Your task to perform on an android device: change timer sound Image 0: 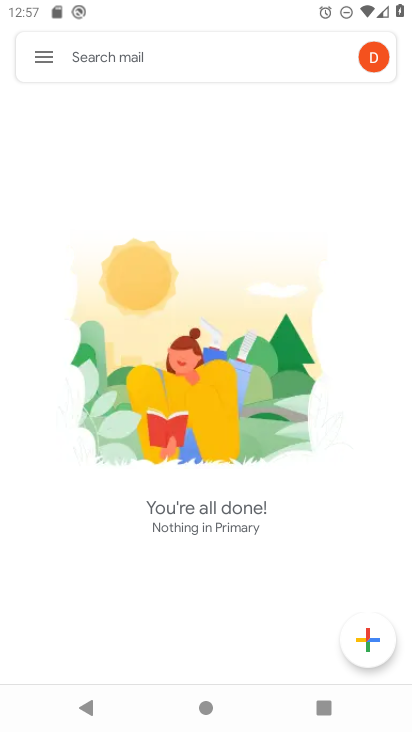
Step 0: press home button
Your task to perform on an android device: change timer sound Image 1: 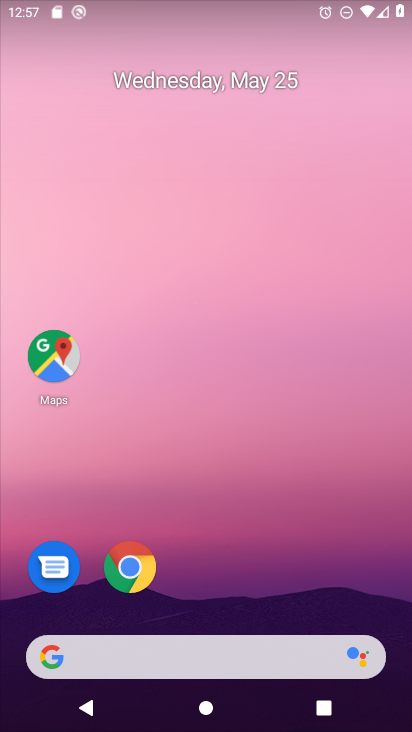
Step 1: drag from (393, 684) to (349, 167)
Your task to perform on an android device: change timer sound Image 2: 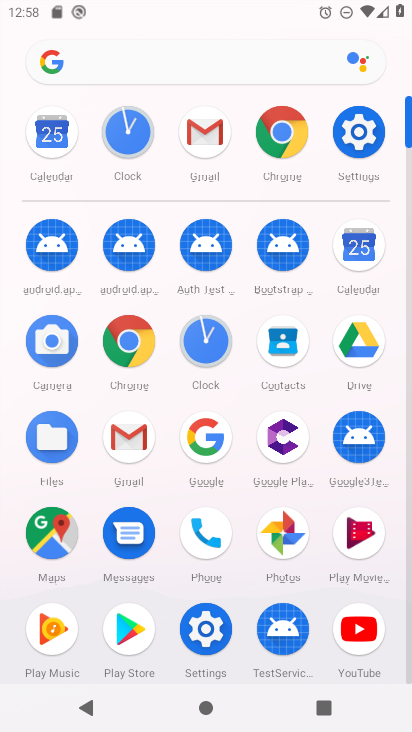
Step 2: click (367, 136)
Your task to perform on an android device: change timer sound Image 3: 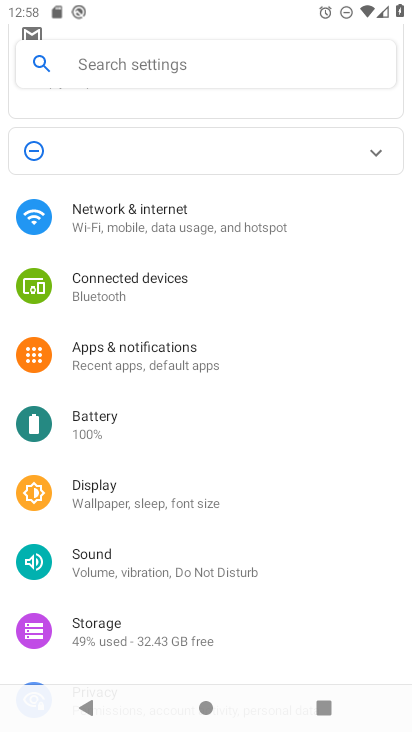
Step 3: click (91, 570)
Your task to perform on an android device: change timer sound Image 4: 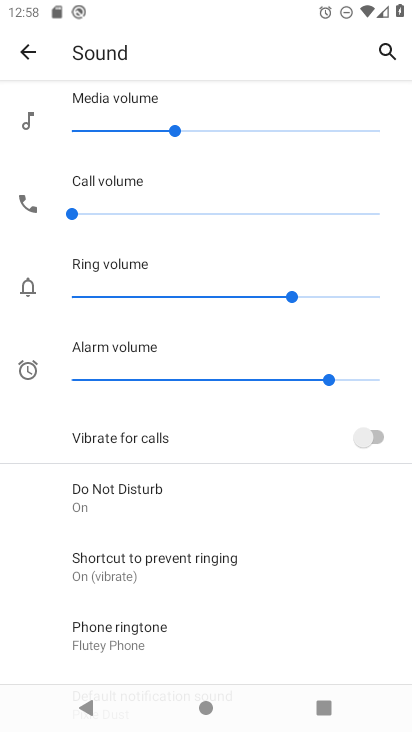
Step 4: press back button
Your task to perform on an android device: change timer sound Image 5: 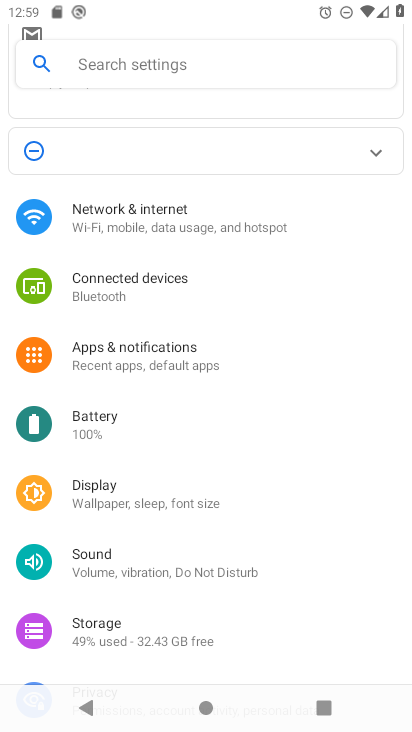
Step 5: drag from (283, 646) to (338, 272)
Your task to perform on an android device: change timer sound Image 6: 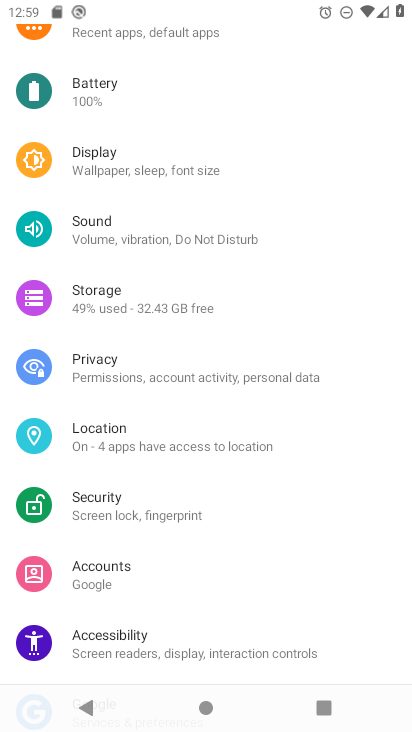
Step 6: drag from (242, 614) to (279, 249)
Your task to perform on an android device: change timer sound Image 7: 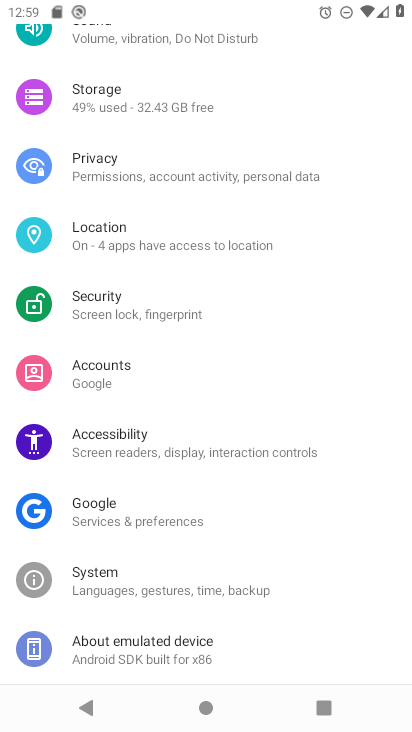
Step 7: drag from (301, 630) to (336, 302)
Your task to perform on an android device: change timer sound Image 8: 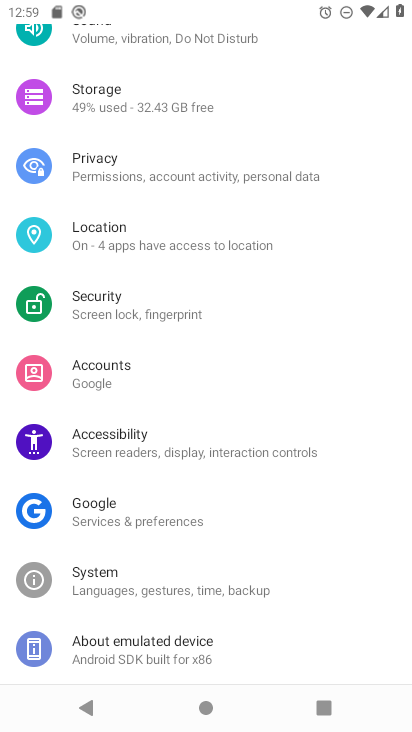
Step 8: drag from (326, 92) to (366, 571)
Your task to perform on an android device: change timer sound Image 9: 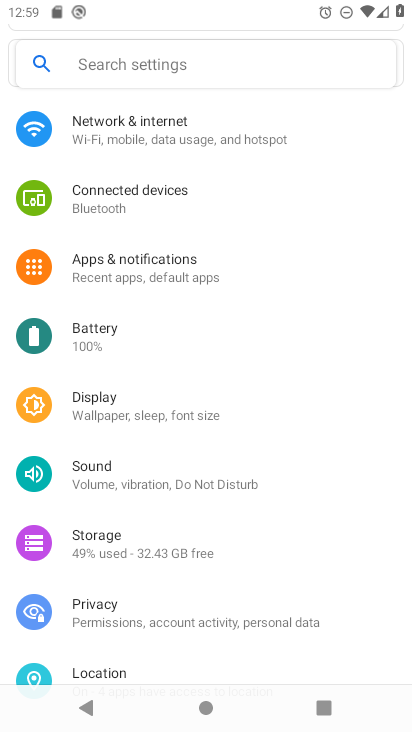
Step 9: drag from (346, 658) to (360, 275)
Your task to perform on an android device: change timer sound Image 10: 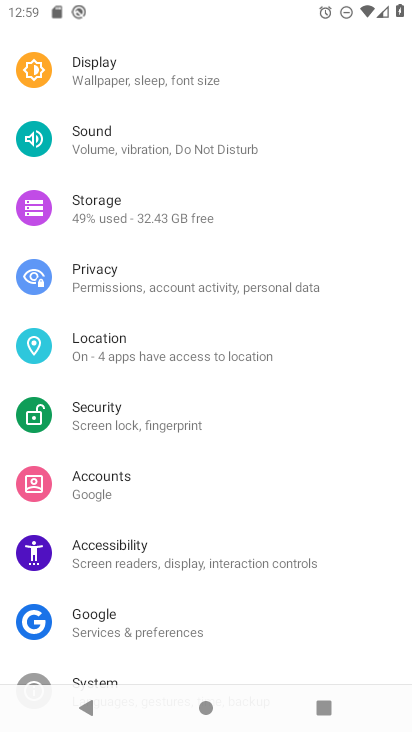
Step 10: press home button
Your task to perform on an android device: change timer sound Image 11: 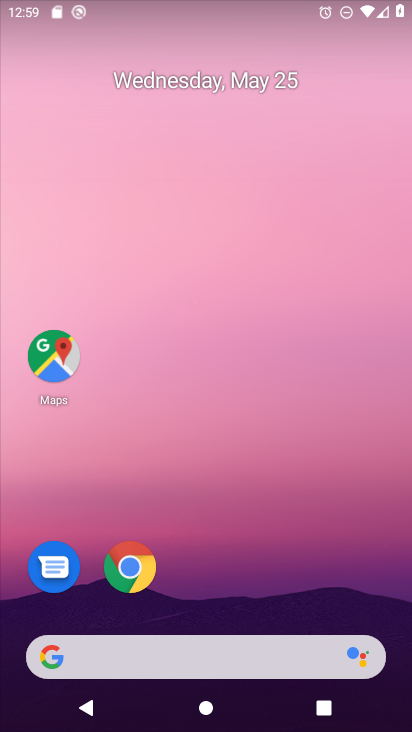
Step 11: drag from (398, 680) to (401, 156)
Your task to perform on an android device: change timer sound Image 12: 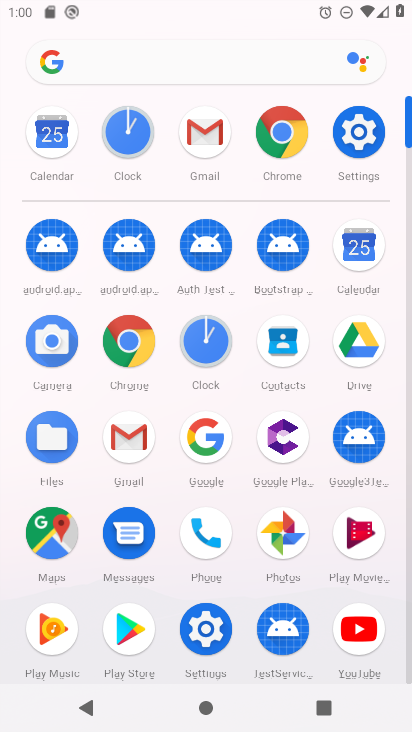
Step 12: click (204, 343)
Your task to perform on an android device: change timer sound Image 13: 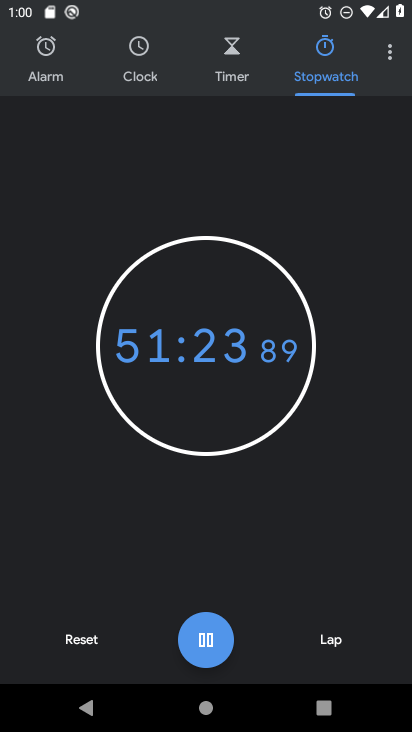
Step 13: click (383, 49)
Your task to perform on an android device: change timer sound Image 14: 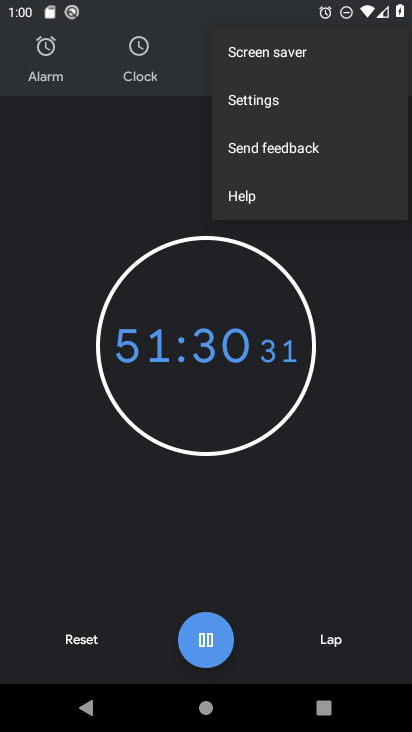
Step 14: click (244, 103)
Your task to perform on an android device: change timer sound Image 15: 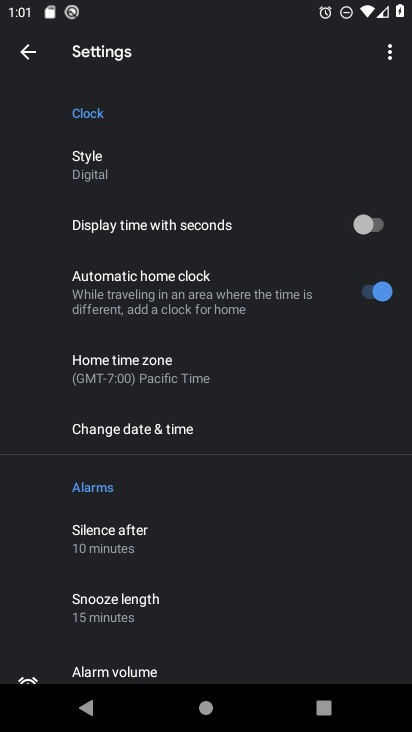
Step 15: drag from (236, 639) to (256, 191)
Your task to perform on an android device: change timer sound Image 16: 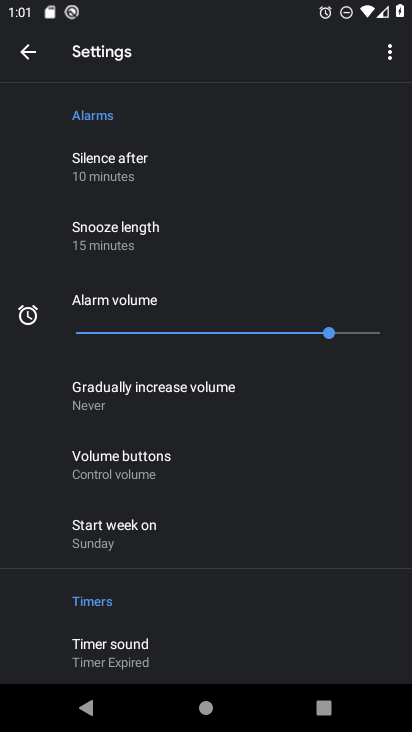
Step 16: click (108, 648)
Your task to perform on an android device: change timer sound Image 17: 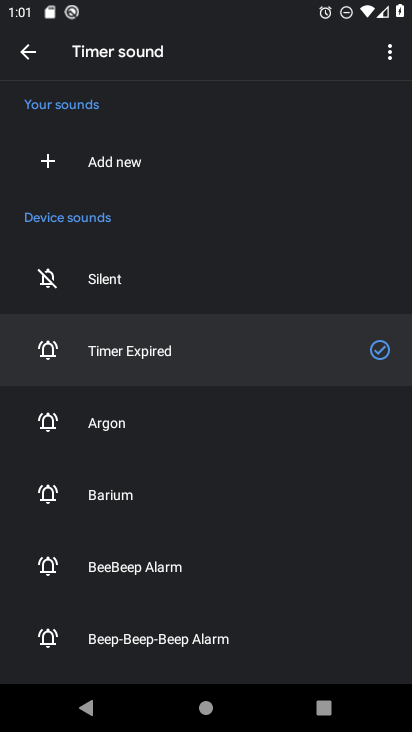
Step 17: click (92, 428)
Your task to perform on an android device: change timer sound Image 18: 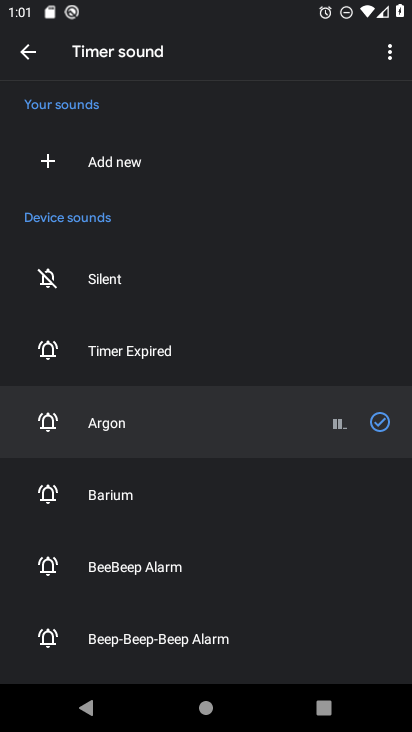
Step 18: task complete